Your task to perform on an android device: What's the weather going to be tomorrow? Image 0: 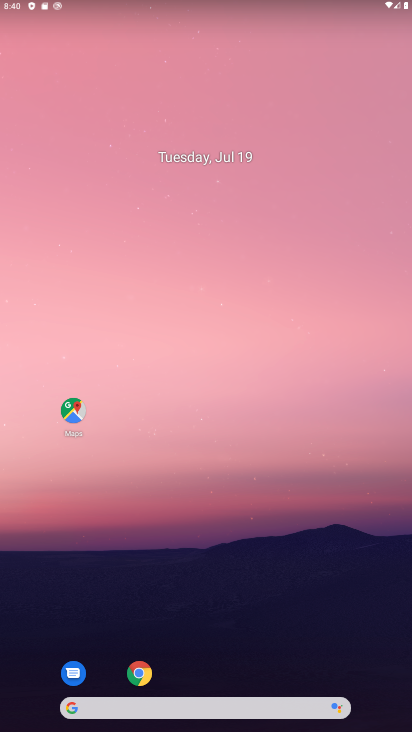
Step 0: click (149, 686)
Your task to perform on an android device: What's the weather going to be tomorrow? Image 1: 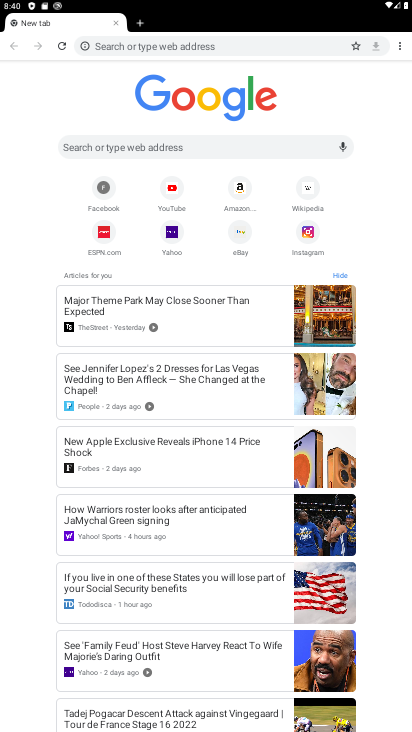
Step 1: click (233, 149)
Your task to perform on an android device: What's the weather going to be tomorrow? Image 2: 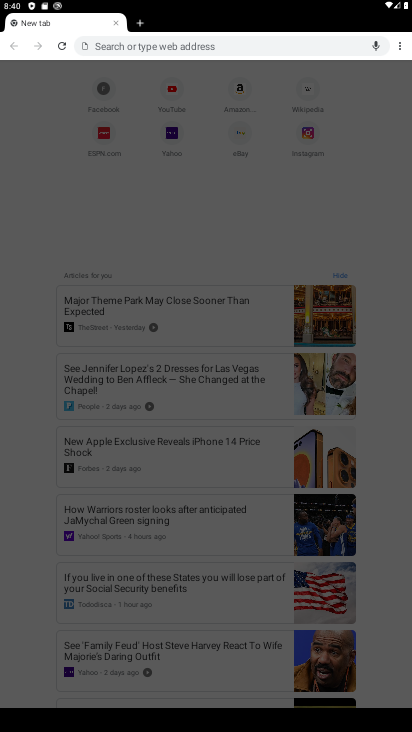
Step 2: type "What's the weather going to be tomorrow?"
Your task to perform on an android device: What's the weather going to be tomorrow? Image 3: 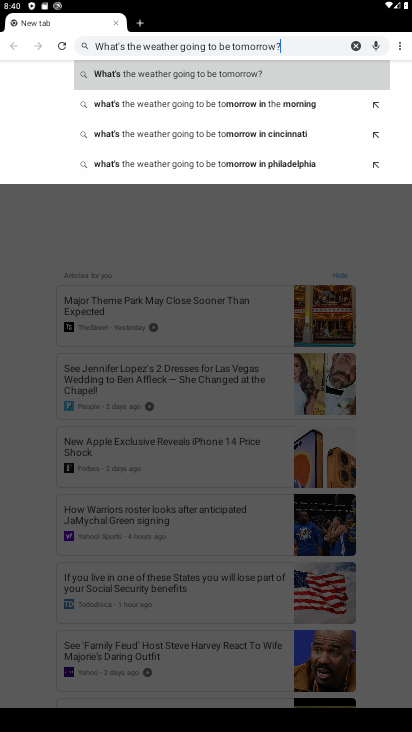
Step 3: press enter
Your task to perform on an android device: What's the weather going to be tomorrow? Image 4: 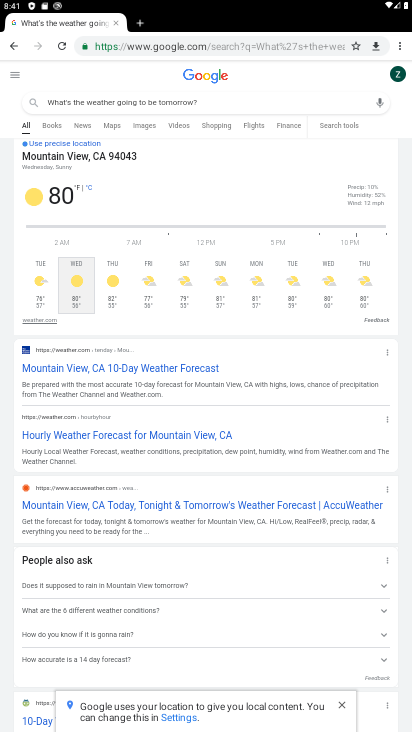
Step 4: task complete